Your task to perform on an android device: see sites visited before in the chrome app Image 0: 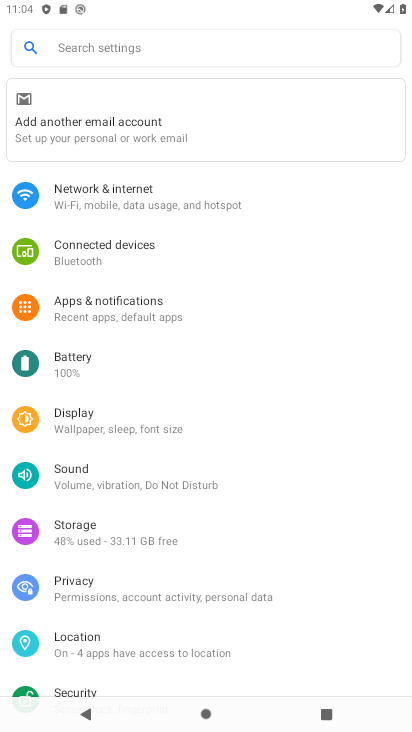
Step 0: press home button
Your task to perform on an android device: see sites visited before in the chrome app Image 1: 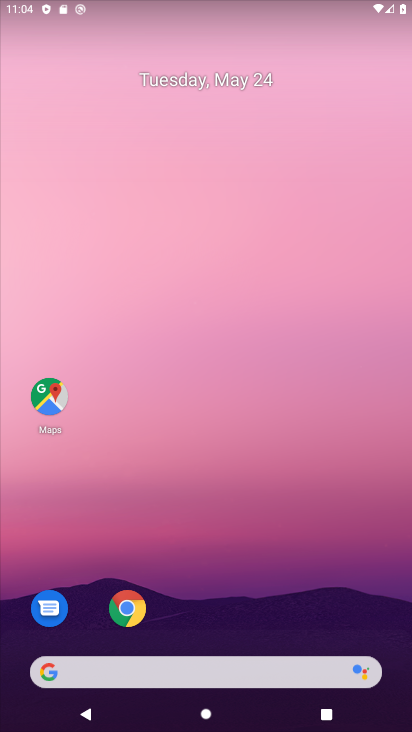
Step 1: click (143, 598)
Your task to perform on an android device: see sites visited before in the chrome app Image 2: 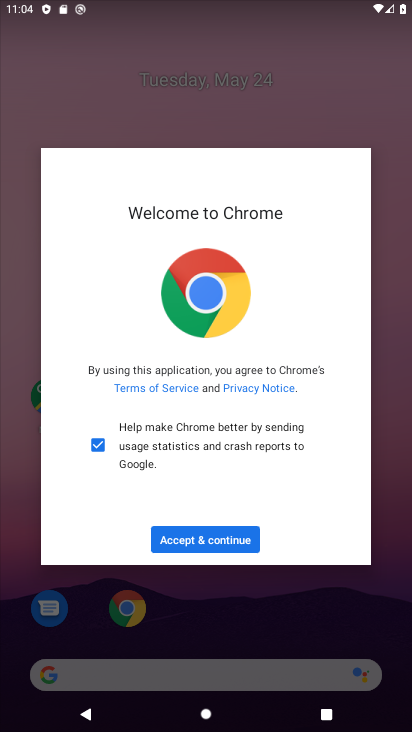
Step 2: click (177, 540)
Your task to perform on an android device: see sites visited before in the chrome app Image 3: 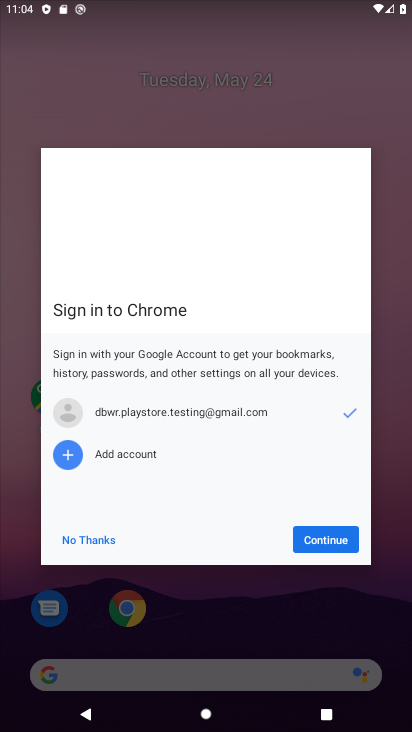
Step 3: click (335, 536)
Your task to perform on an android device: see sites visited before in the chrome app Image 4: 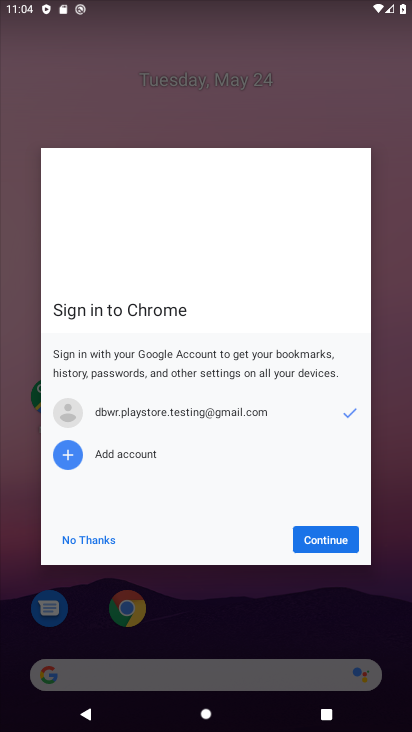
Step 4: click (335, 536)
Your task to perform on an android device: see sites visited before in the chrome app Image 5: 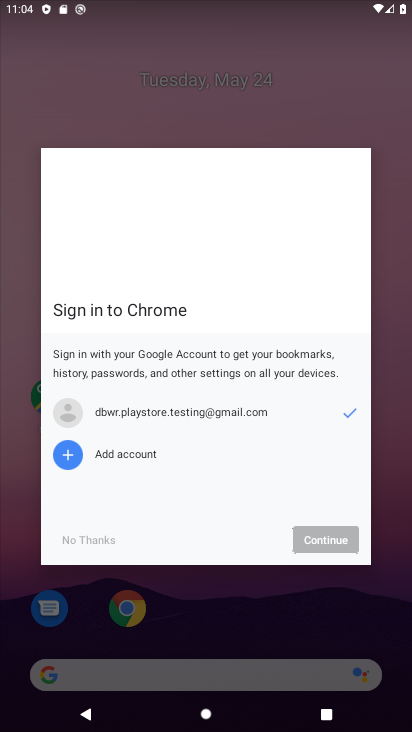
Step 5: click (335, 536)
Your task to perform on an android device: see sites visited before in the chrome app Image 6: 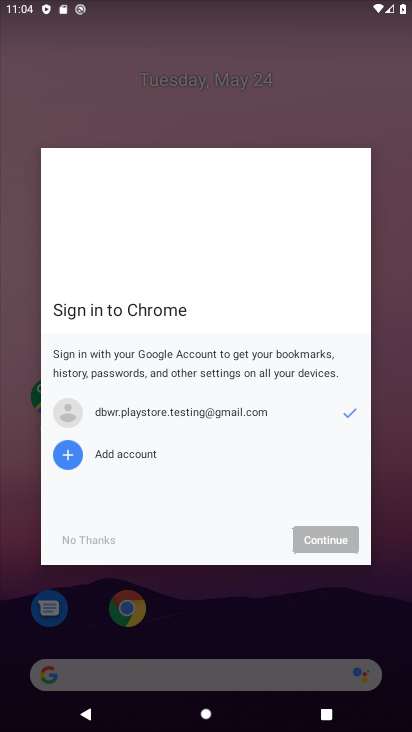
Step 6: click (335, 536)
Your task to perform on an android device: see sites visited before in the chrome app Image 7: 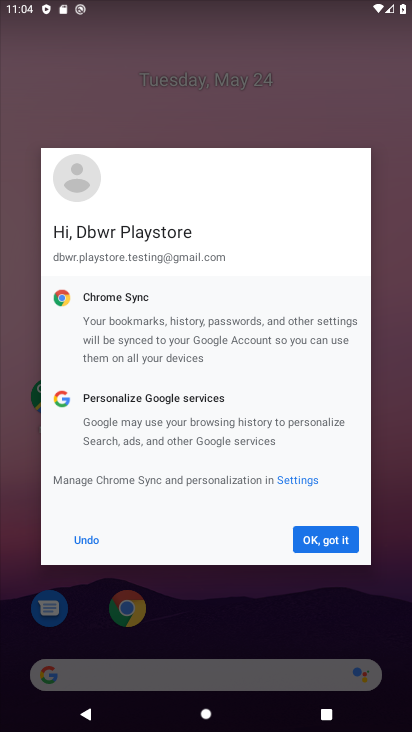
Step 7: click (335, 536)
Your task to perform on an android device: see sites visited before in the chrome app Image 8: 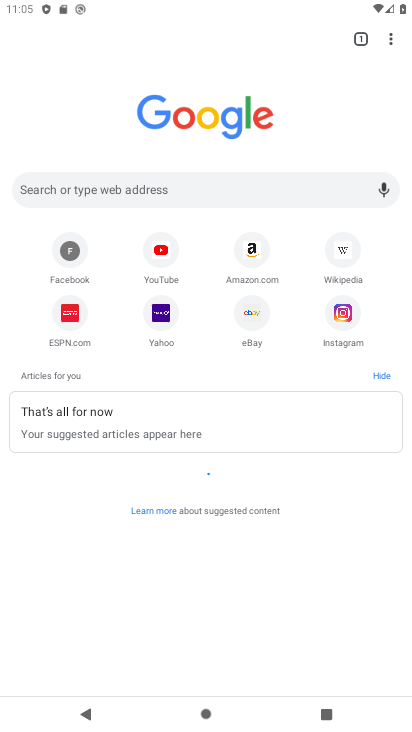
Step 8: click (395, 31)
Your task to perform on an android device: see sites visited before in the chrome app Image 9: 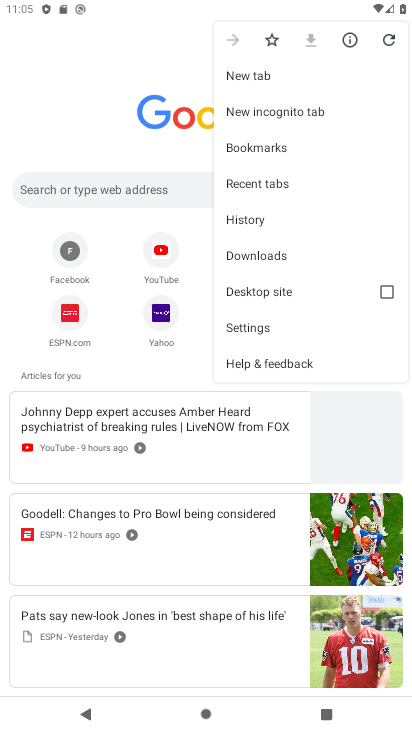
Step 9: click (269, 324)
Your task to perform on an android device: see sites visited before in the chrome app Image 10: 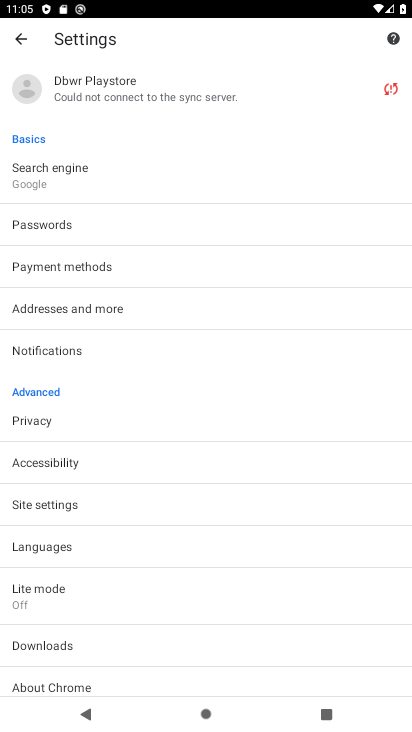
Step 10: task complete